Your task to perform on an android device: What is the recent news? Image 0: 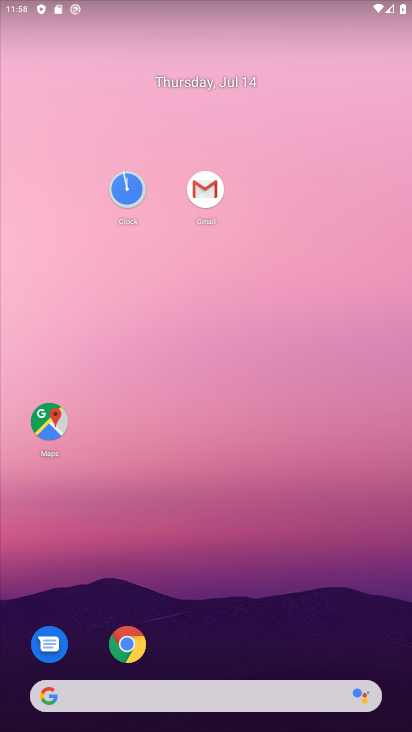
Step 0: click (144, 645)
Your task to perform on an android device: What is the recent news? Image 1: 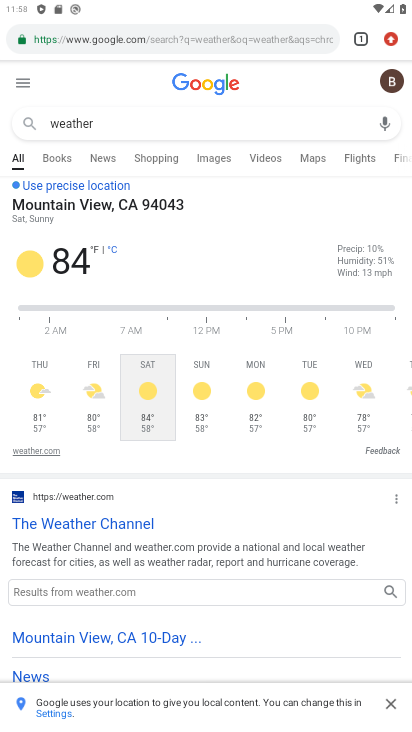
Step 1: click (147, 115)
Your task to perform on an android device: What is the recent news? Image 2: 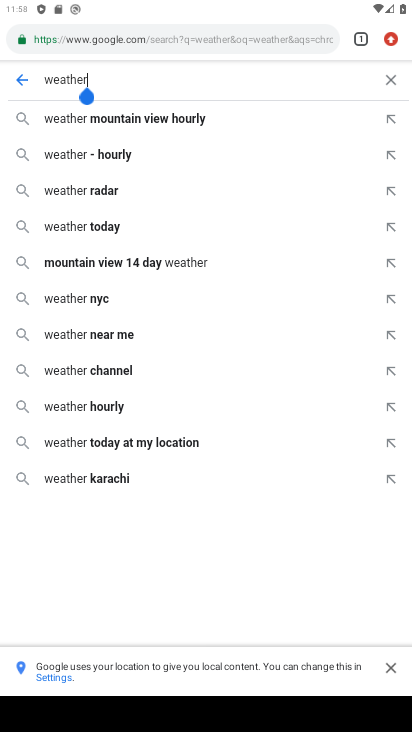
Step 2: click (391, 83)
Your task to perform on an android device: What is the recent news? Image 3: 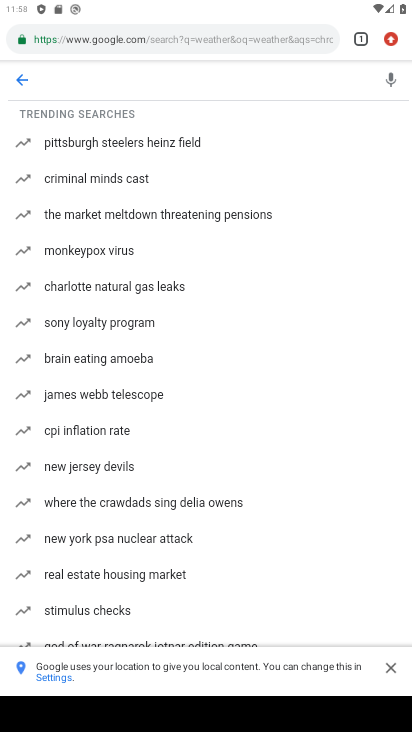
Step 3: type "recent news"
Your task to perform on an android device: What is the recent news? Image 4: 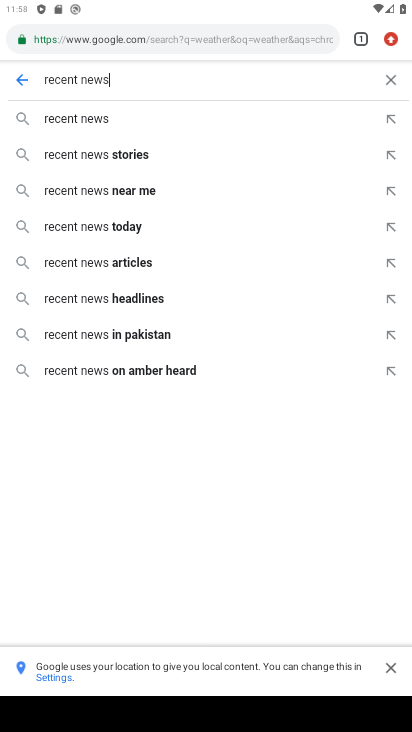
Step 4: click (120, 118)
Your task to perform on an android device: What is the recent news? Image 5: 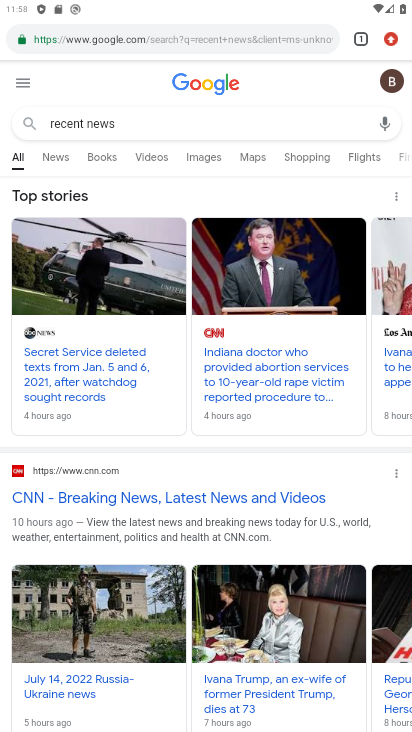
Step 5: task complete